Your task to perform on an android device: star an email in the gmail app Image 0: 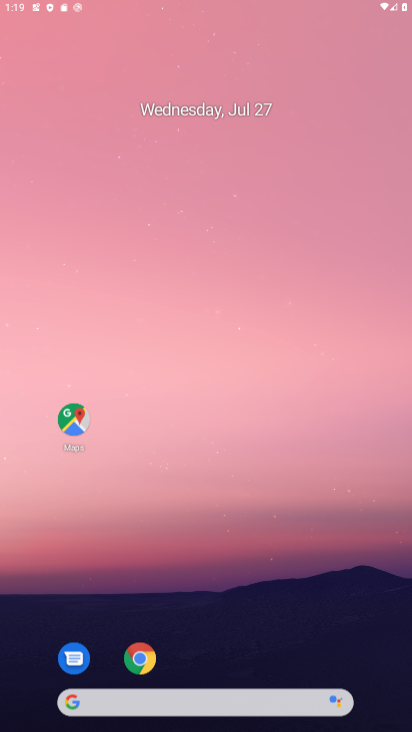
Step 0: drag from (312, 592) to (304, 36)
Your task to perform on an android device: star an email in the gmail app Image 1: 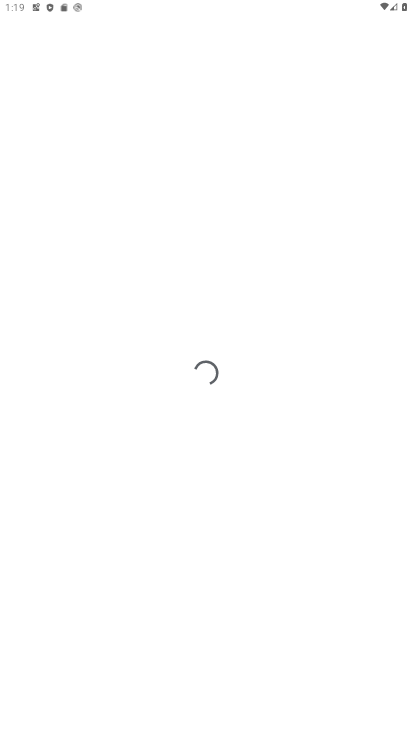
Step 1: press home button
Your task to perform on an android device: star an email in the gmail app Image 2: 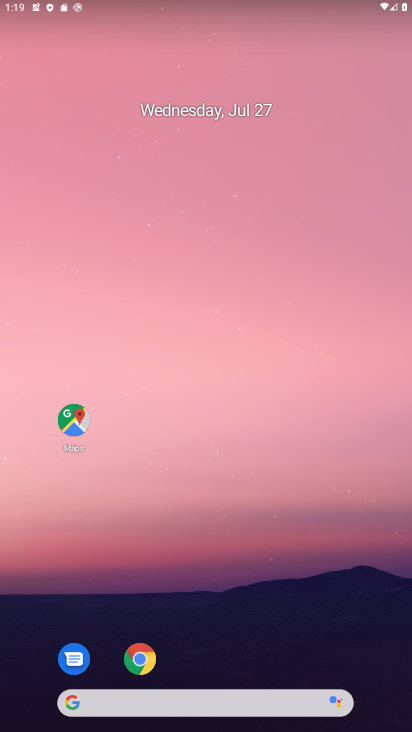
Step 2: drag from (236, 426) to (190, 103)
Your task to perform on an android device: star an email in the gmail app Image 3: 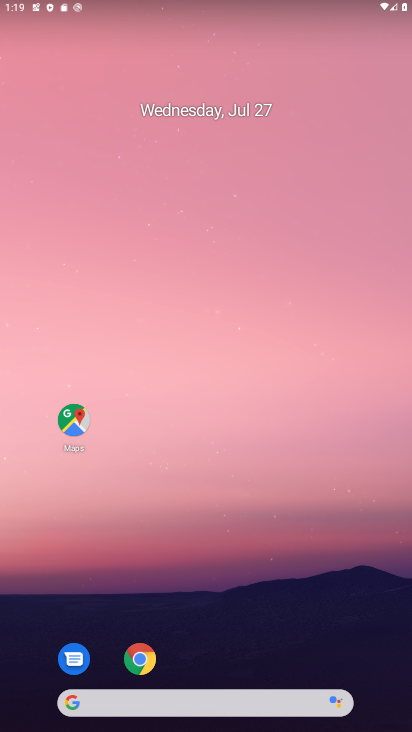
Step 3: drag from (282, 630) to (255, 52)
Your task to perform on an android device: star an email in the gmail app Image 4: 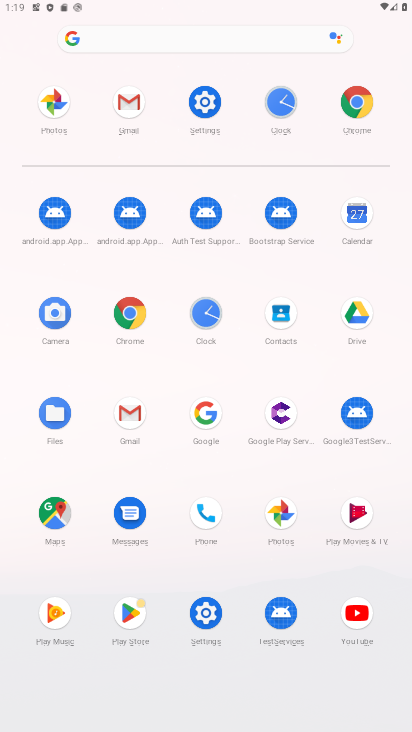
Step 4: click (131, 413)
Your task to perform on an android device: star an email in the gmail app Image 5: 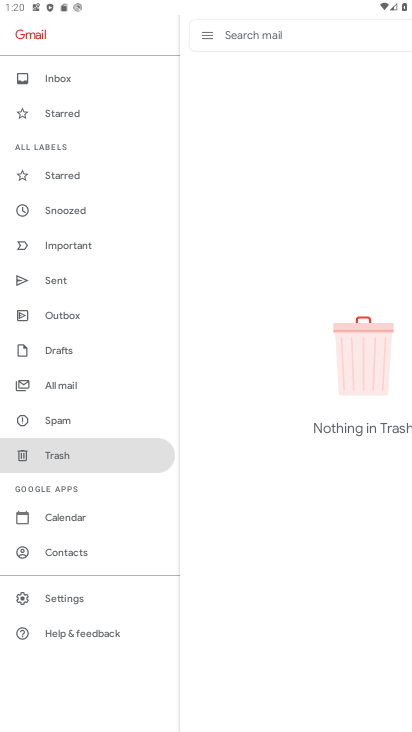
Step 5: click (69, 390)
Your task to perform on an android device: star an email in the gmail app Image 6: 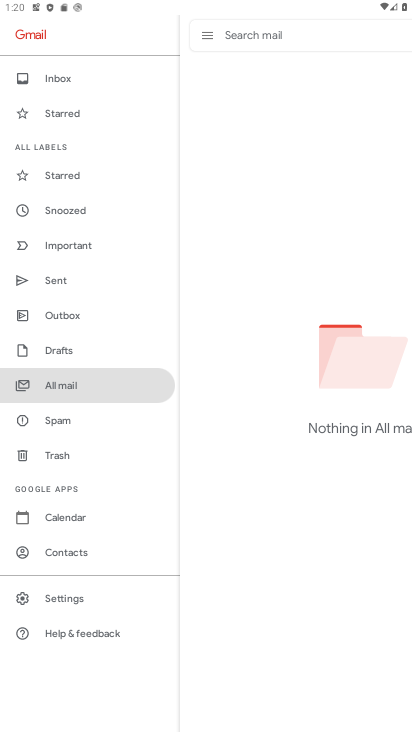
Step 6: task complete